Your task to perform on an android device: open app "YouTube Kids" (install if not already installed), go to login, and select forgot password Image 0: 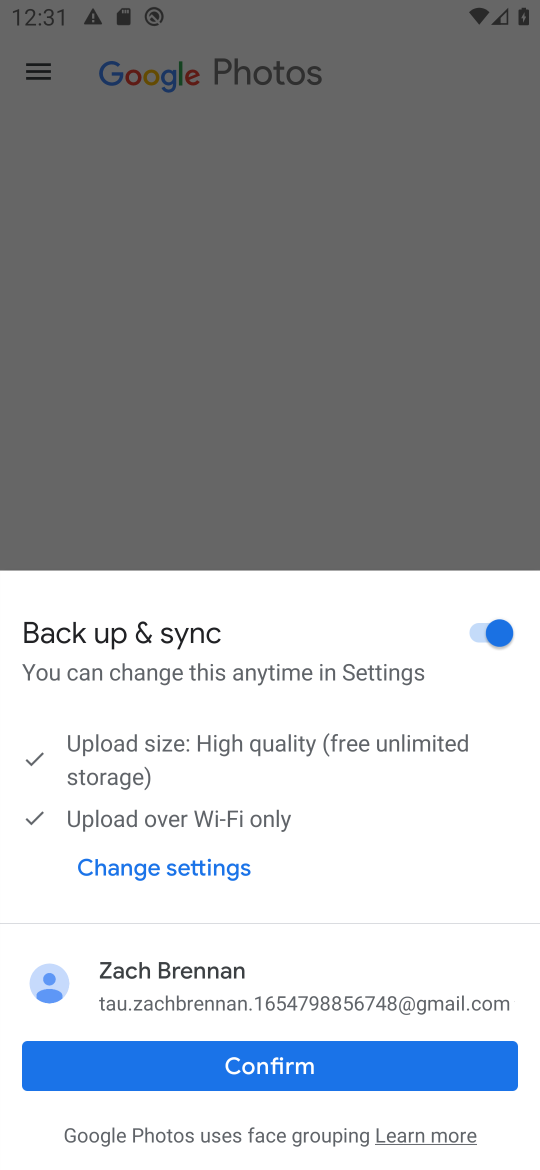
Step 0: press home button
Your task to perform on an android device: open app "YouTube Kids" (install if not already installed), go to login, and select forgot password Image 1: 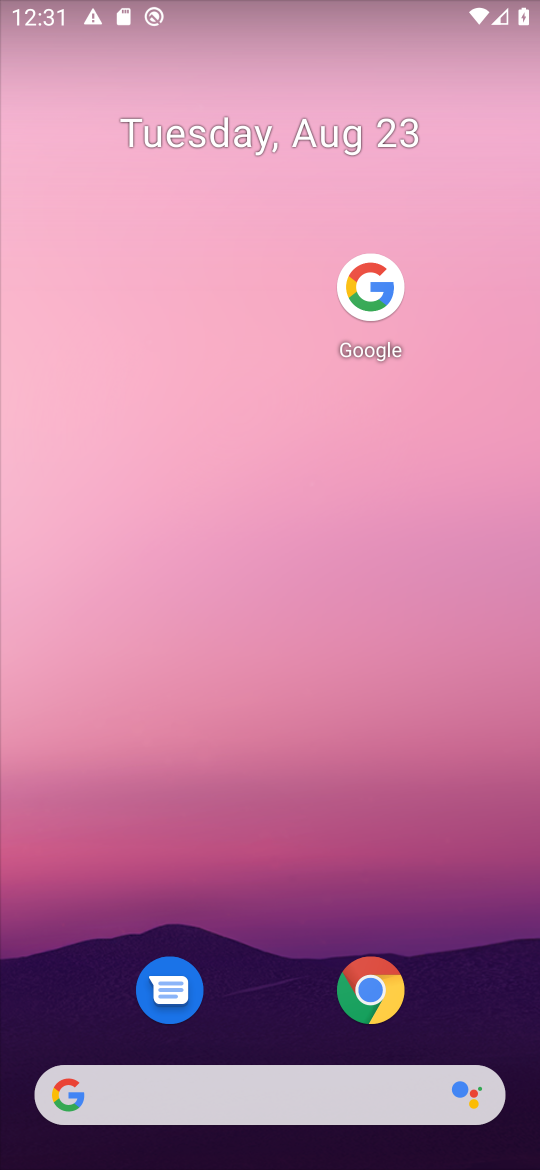
Step 1: drag from (247, 784) to (264, 440)
Your task to perform on an android device: open app "YouTube Kids" (install if not already installed), go to login, and select forgot password Image 2: 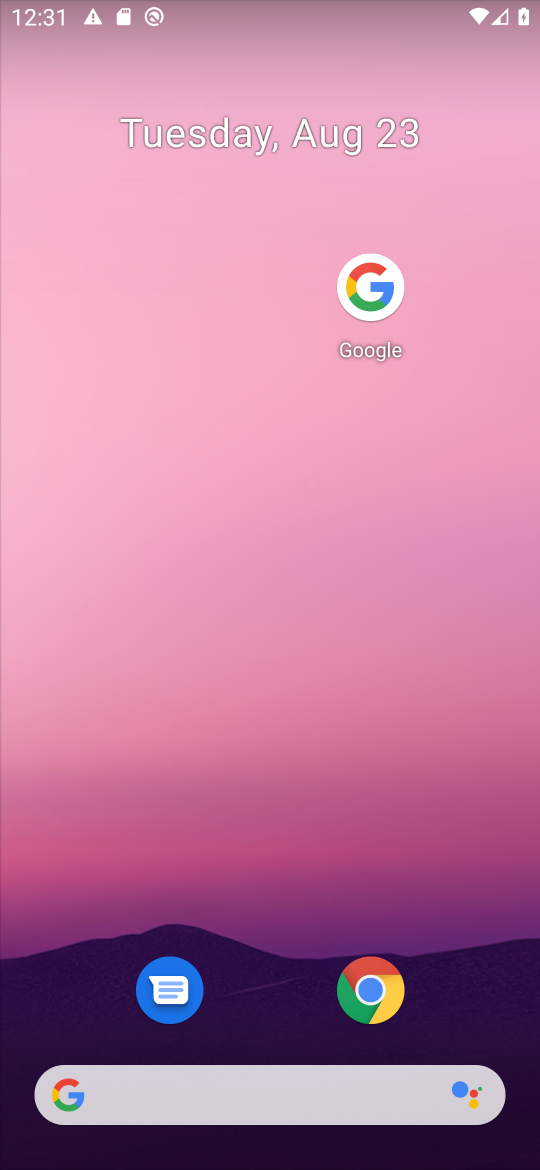
Step 2: drag from (227, 868) to (237, 202)
Your task to perform on an android device: open app "YouTube Kids" (install if not already installed), go to login, and select forgot password Image 3: 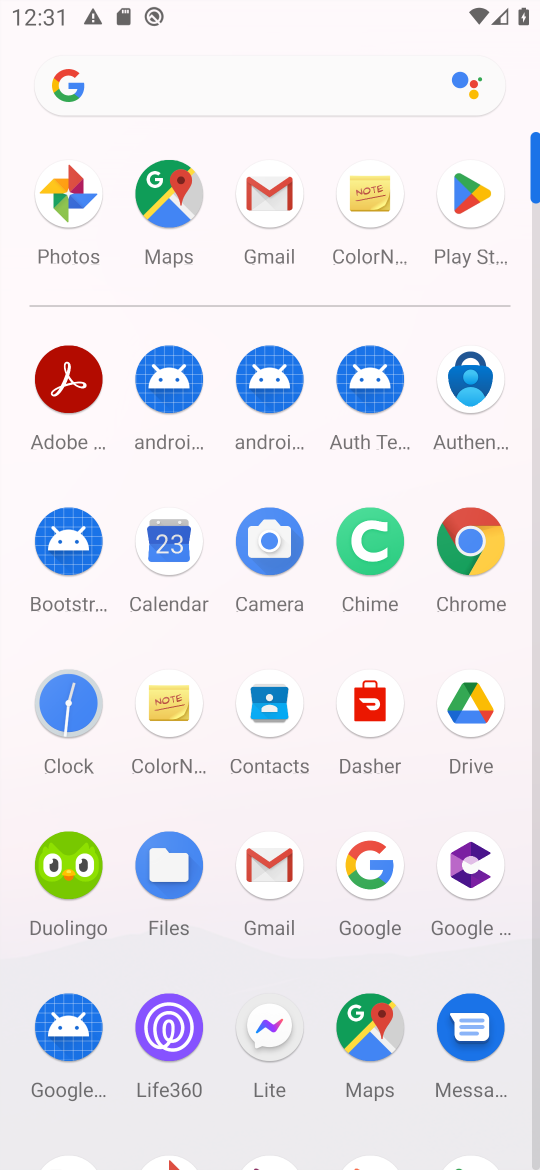
Step 3: click (483, 195)
Your task to perform on an android device: open app "YouTube Kids" (install if not already installed), go to login, and select forgot password Image 4: 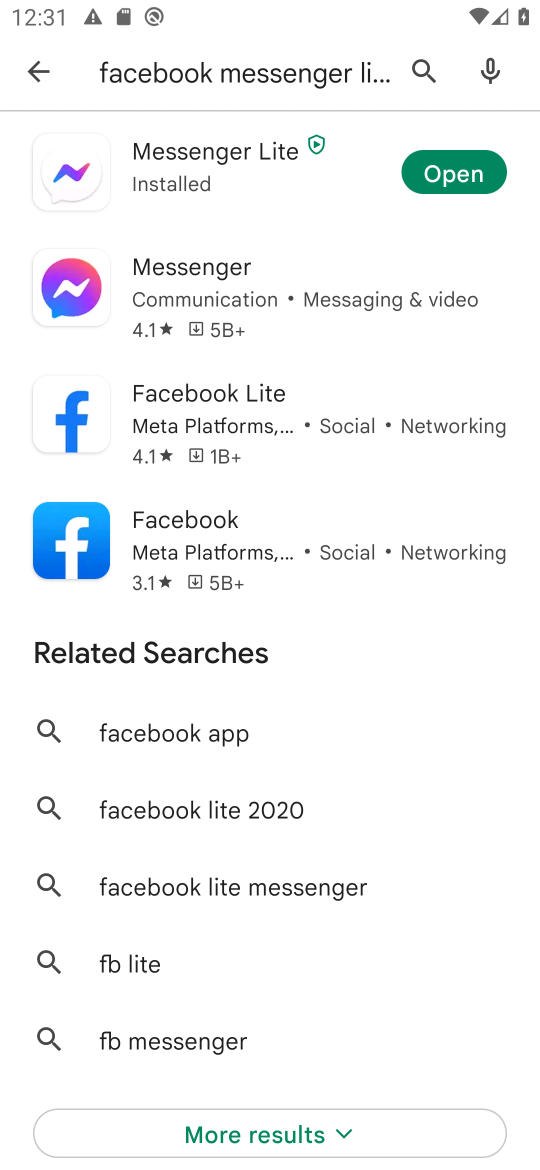
Step 4: click (50, 65)
Your task to perform on an android device: open app "YouTube Kids" (install if not already installed), go to login, and select forgot password Image 5: 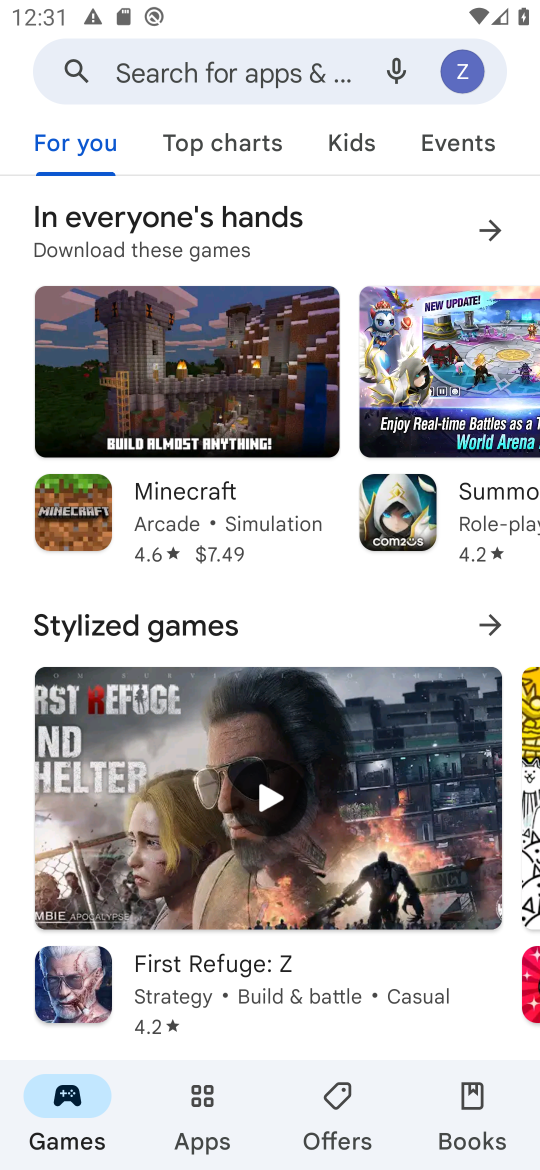
Step 5: click (167, 62)
Your task to perform on an android device: open app "YouTube Kids" (install if not already installed), go to login, and select forgot password Image 6: 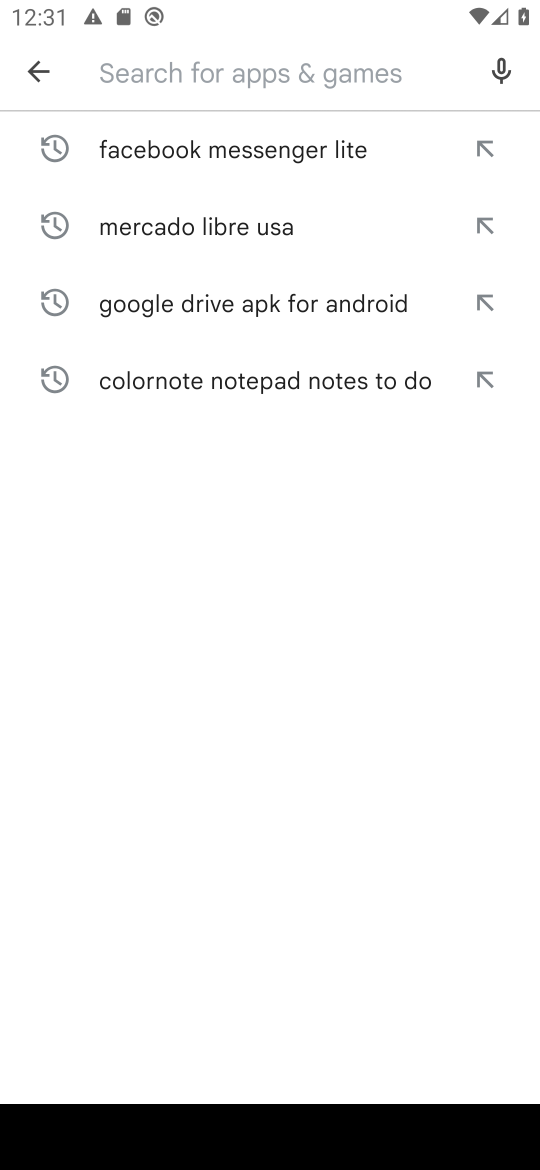
Step 6: type "YouTube Kid "
Your task to perform on an android device: open app "YouTube Kids" (install if not already installed), go to login, and select forgot password Image 7: 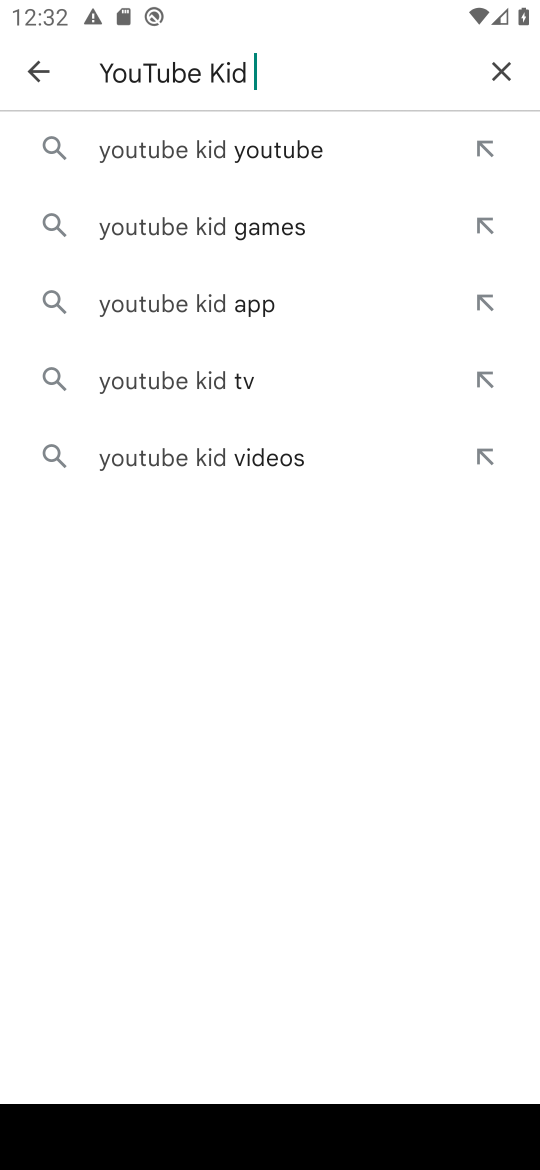
Step 7: click (263, 160)
Your task to perform on an android device: open app "YouTube Kids" (install if not already installed), go to login, and select forgot password Image 8: 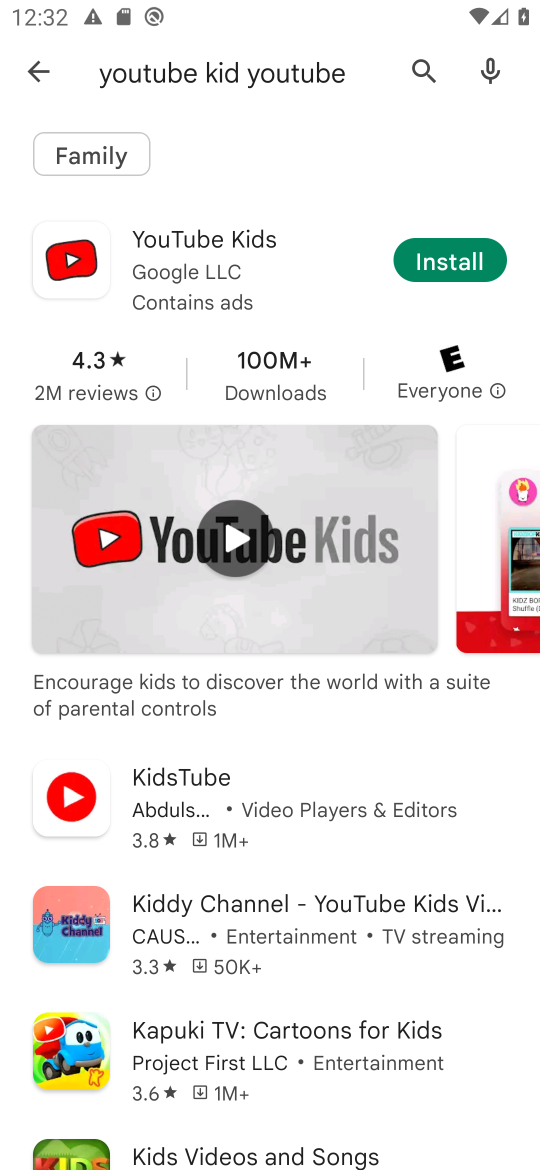
Step 8: click (459, 260)
Your task to perform on an android device: open app "YouTube Kids" (install if not already installed), go to login, and select forgot password Image 9: 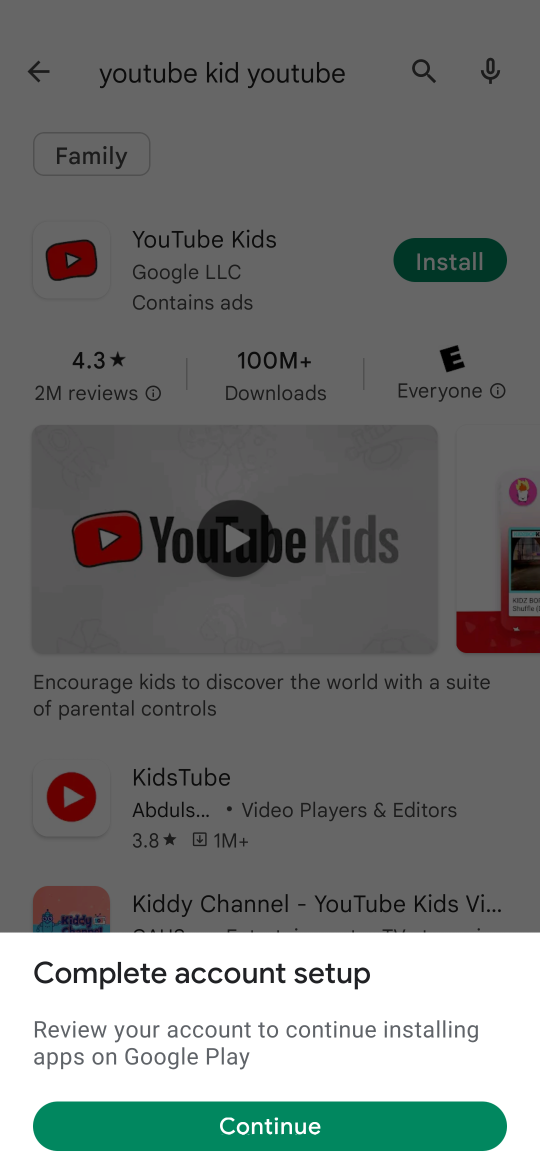
Step 9: task complete